Your task to perform on an android device: empty trash in the gmail app Image 0: 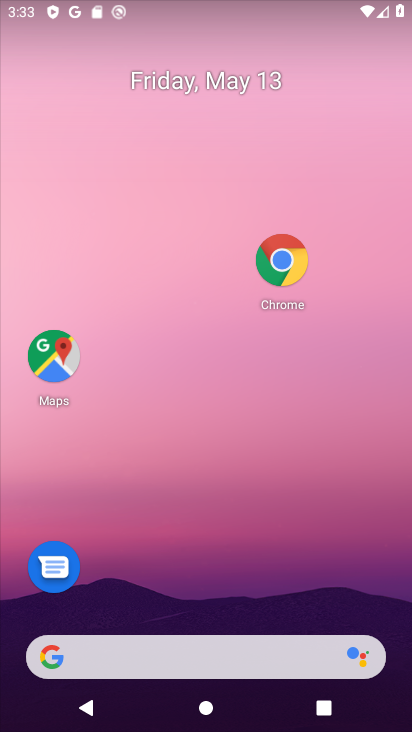
Step 0: drag from (301, 667) to (236, 201)
Your task to perform on an android device: empty trash in the gmail app Image 1: 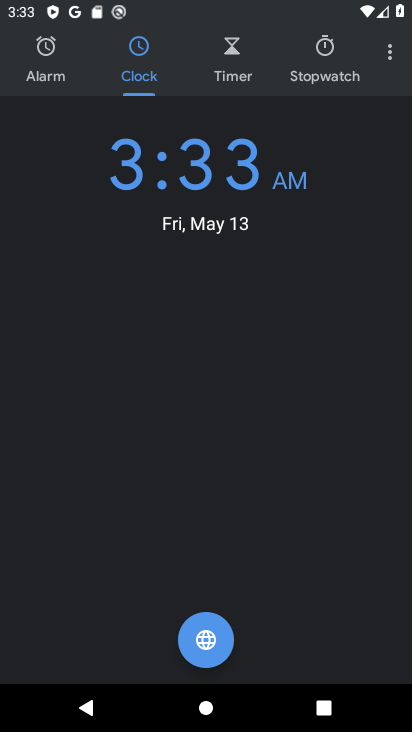
Step 1: click (393, 47)
Your task to perform on an android device: empty trash in the gmail app Image 2: 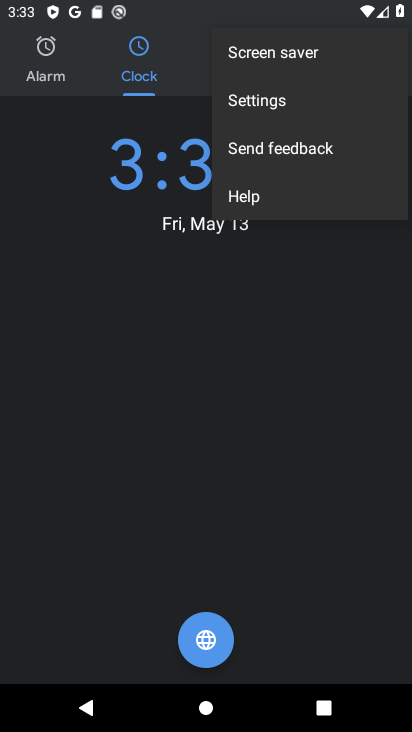
Step 2: press home button
Your task to perform on an android device: empty trash in the gmail app Image 3: 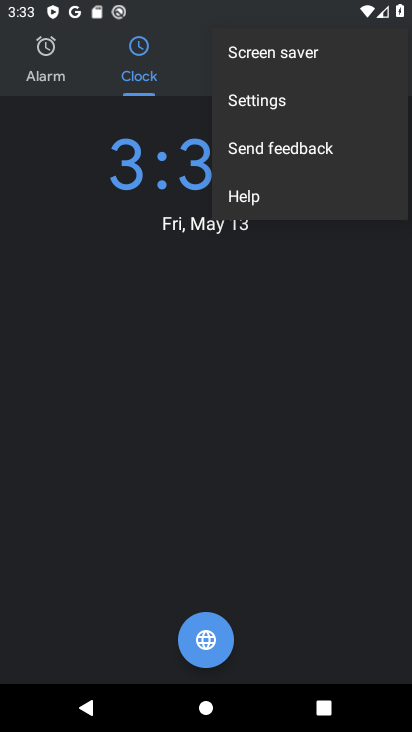
Step 3: press home button
Your task to perform on an android device: empty trash in the gmail app Image 4: 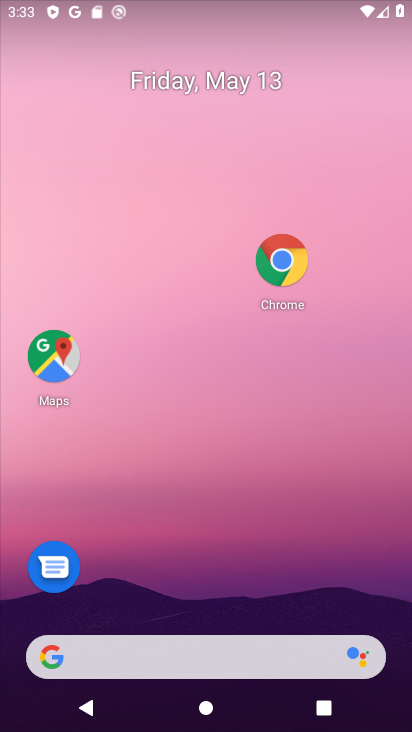
Step 4: press back button
Your task to perform on an android device: empty trash in the gmail app Image 5: 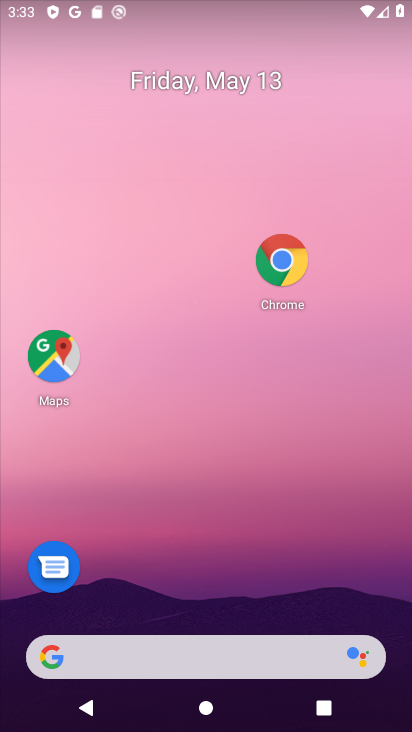
Step 5: drag from (268, 577) to (47, 29)
Your task to perform on an android device: empty trash in the gmail app Image 6: 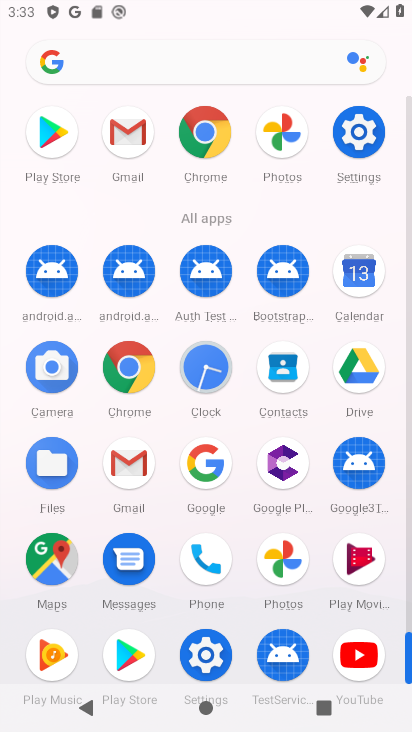
Step 6: click (132, 444)
Your task to perform on an android device: empty trash in the gmail app Image 7: 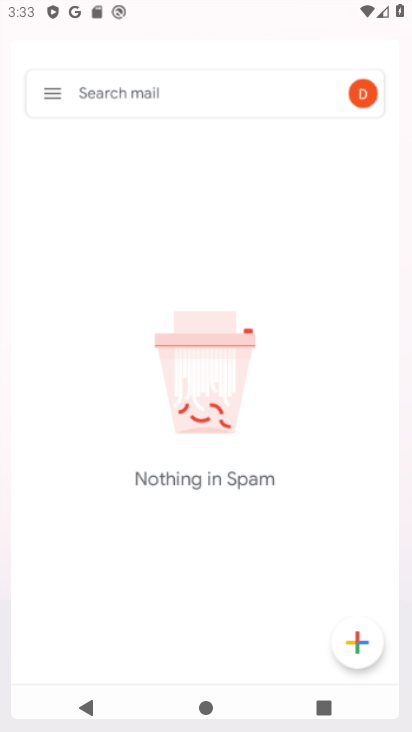
Step 7: click (126, 458)
Your task to perform on an android device: empty trash in the gmail app Image 8: 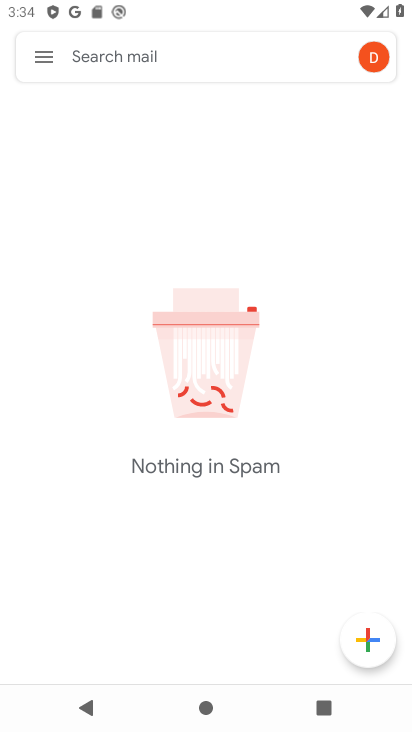
Step 8: click (49, 54)
Your task to perform on an android device: empty trash in the gmail app Image 9: 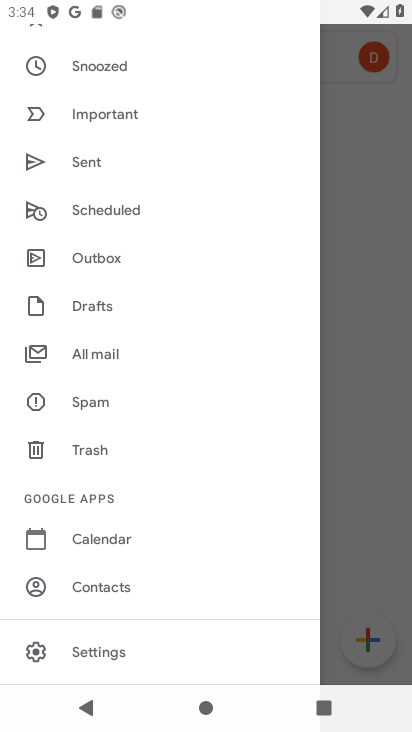
Step 9: click (104, 438)
Your task to perform on an android device: empty trash in the gmail app Image 10: 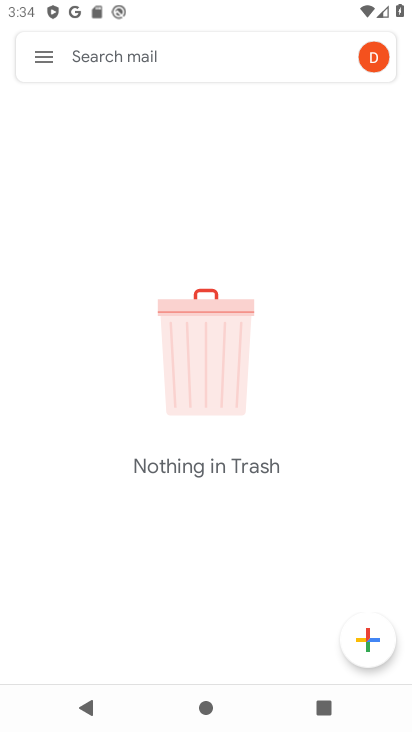
Step 10: task complete